Your task to perform on an android device: add a contact Image 0: 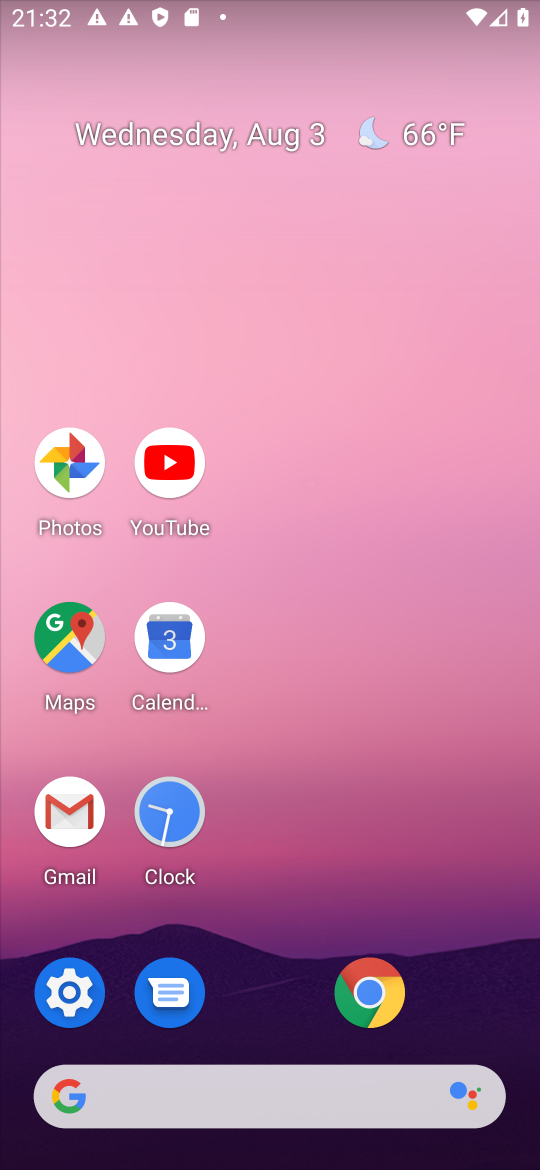
Step 0: drag from (267, 887) to (213, 164)
Your task to perform on an android device: add a contact Image 1: 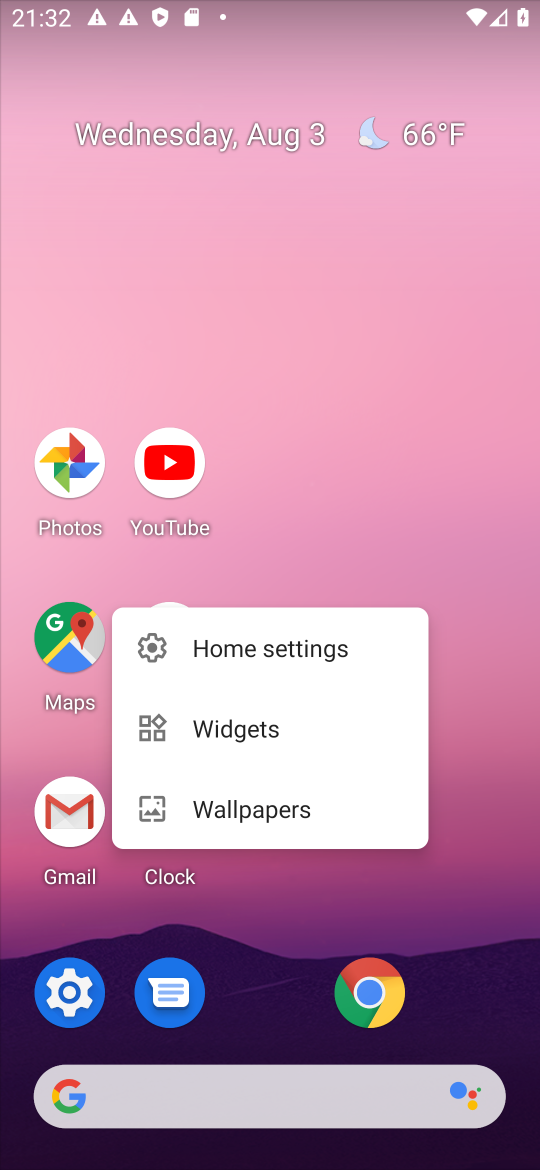
Step 1: click (383, 503)
Your task to perform on an android device: add a contact Image 2: 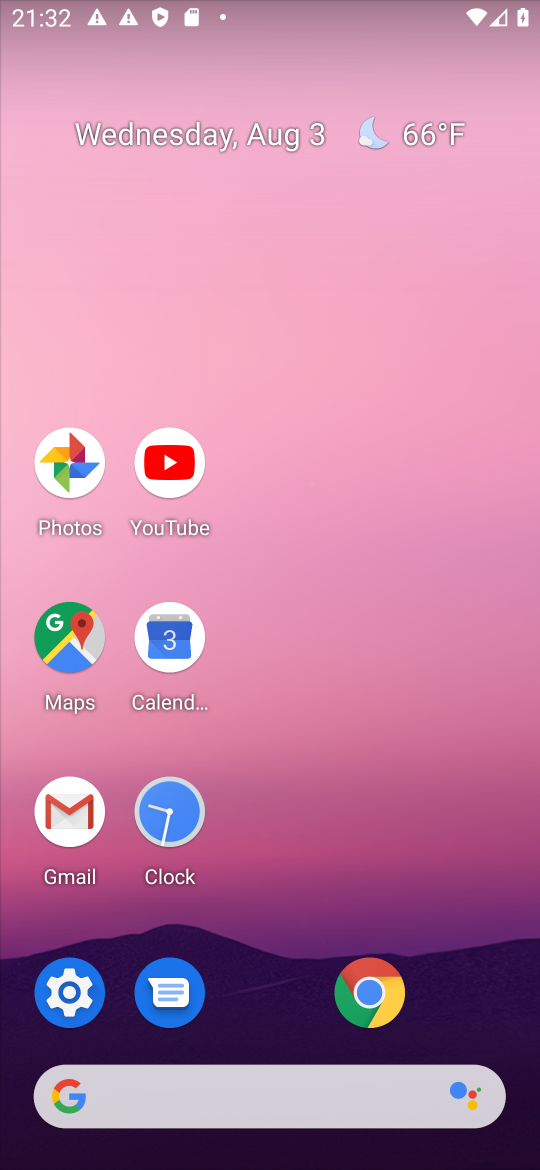
Step 2: drag from (286, 893) to (324, 11)
Your task to perform on an android device: add a contact Image 3: 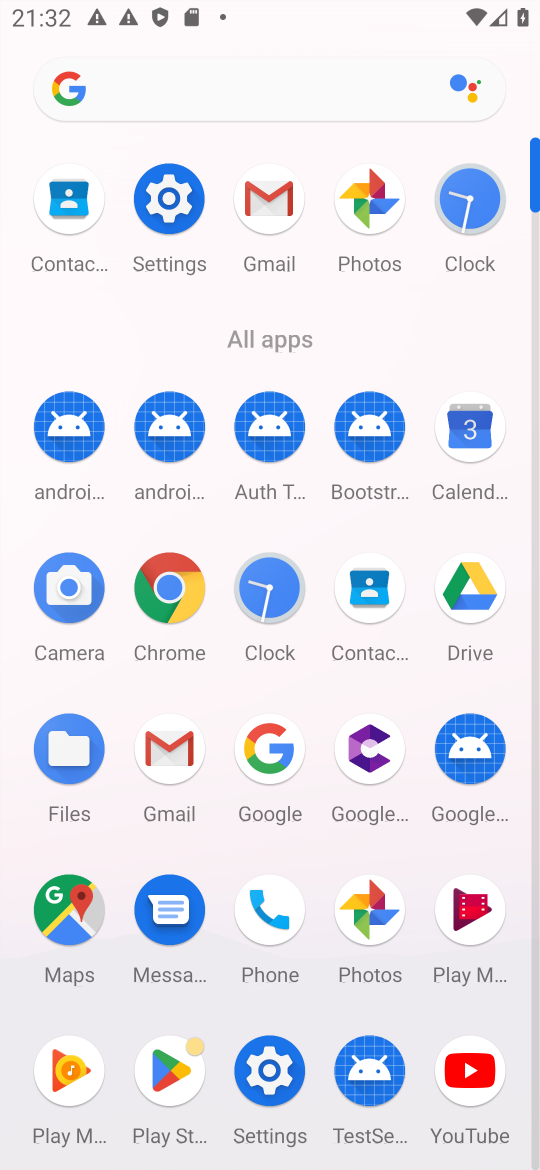
Step 3: click (384, 591)
Your task to perform on an android device: add a contact Image 4: 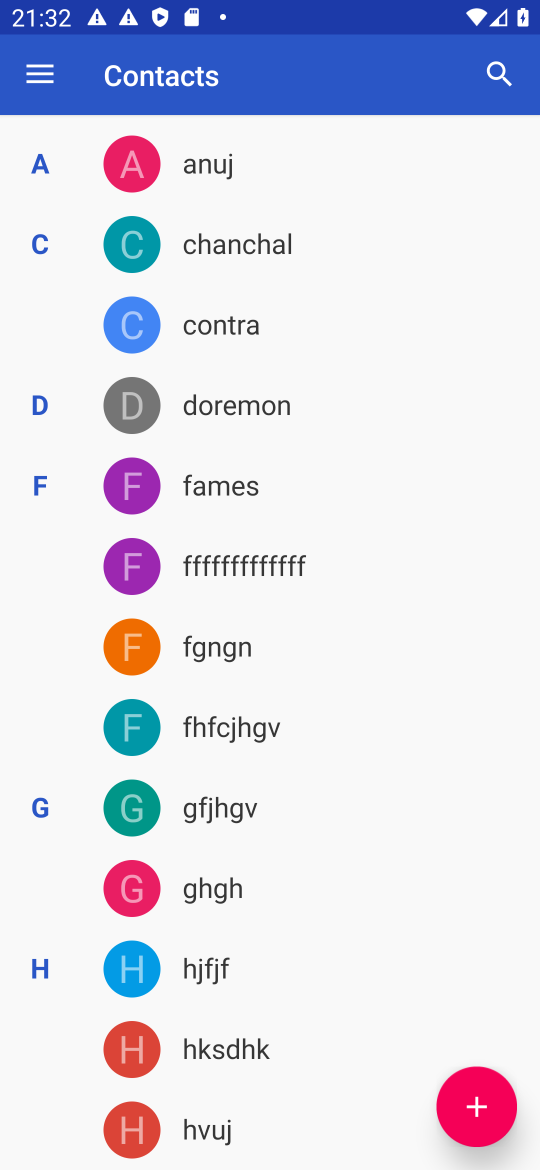
Step 4: click (384, 591)
Your task to perform on an android device: add a contact Image 5: 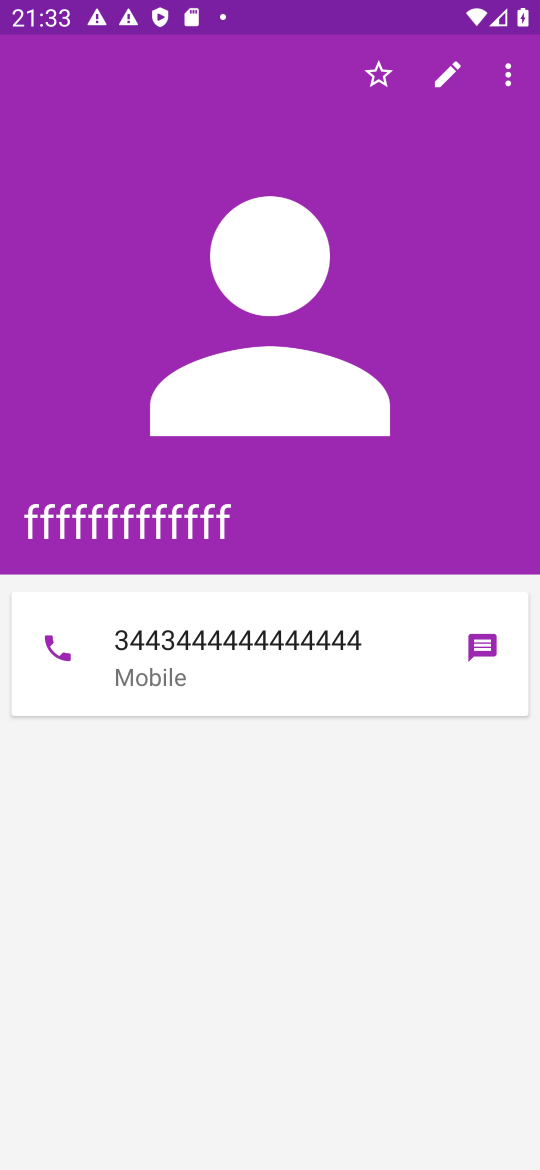
Step 5: press back button
Your task to perform on an android device: add a contact Image 6: 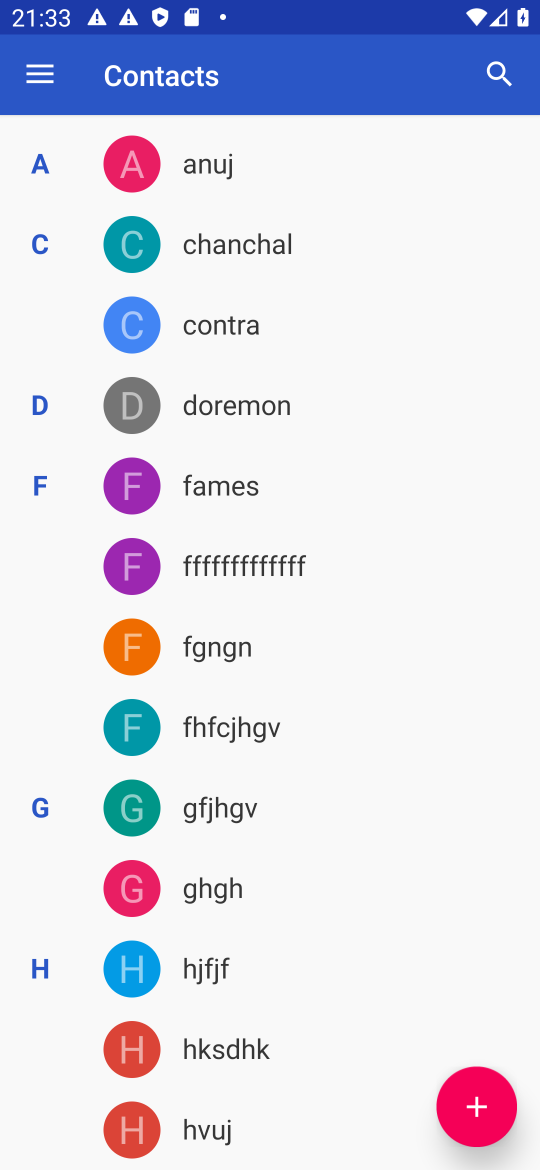
Step 6: click (454, 1094)
Your task to perform on an android device: add a contact Image 7: 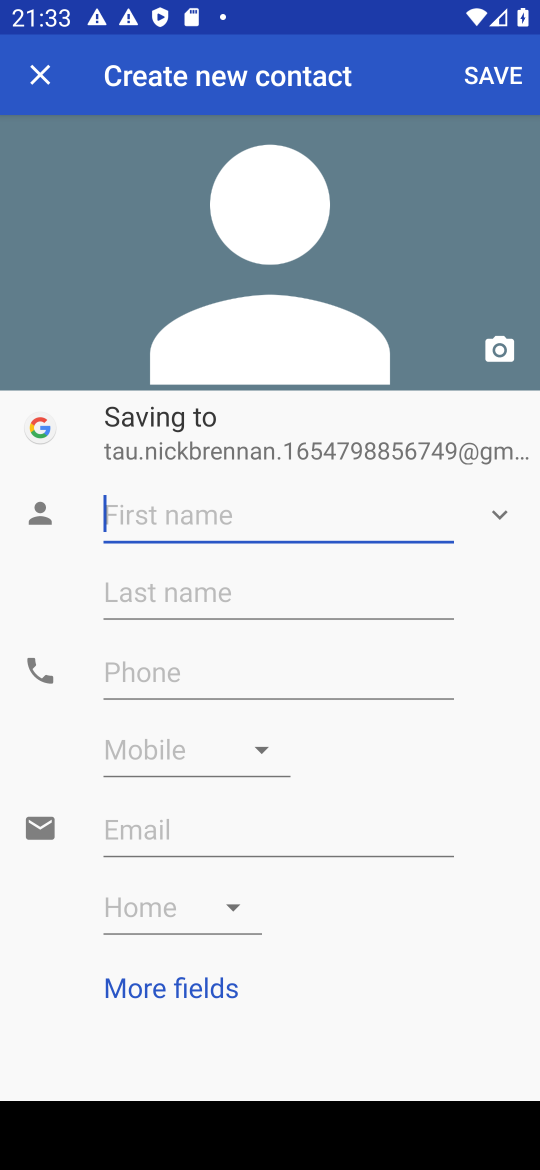
Step 7: click (295, 512)
Your task to perform on an android device: add a contact Image 8: 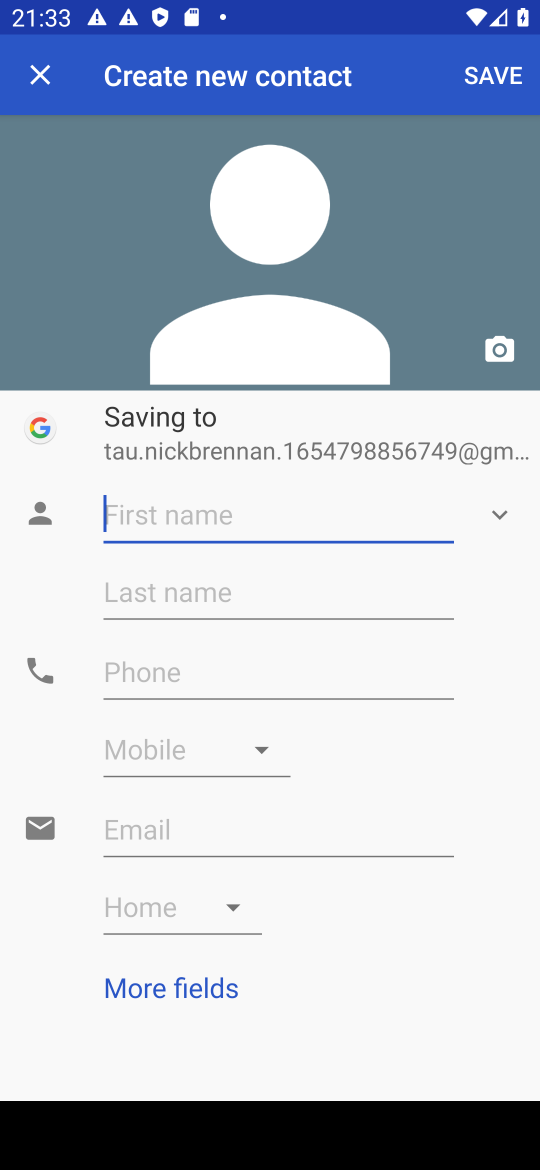
Step 8: type "bnbn"
Your task to perform on an android device: add a contact Image 9: 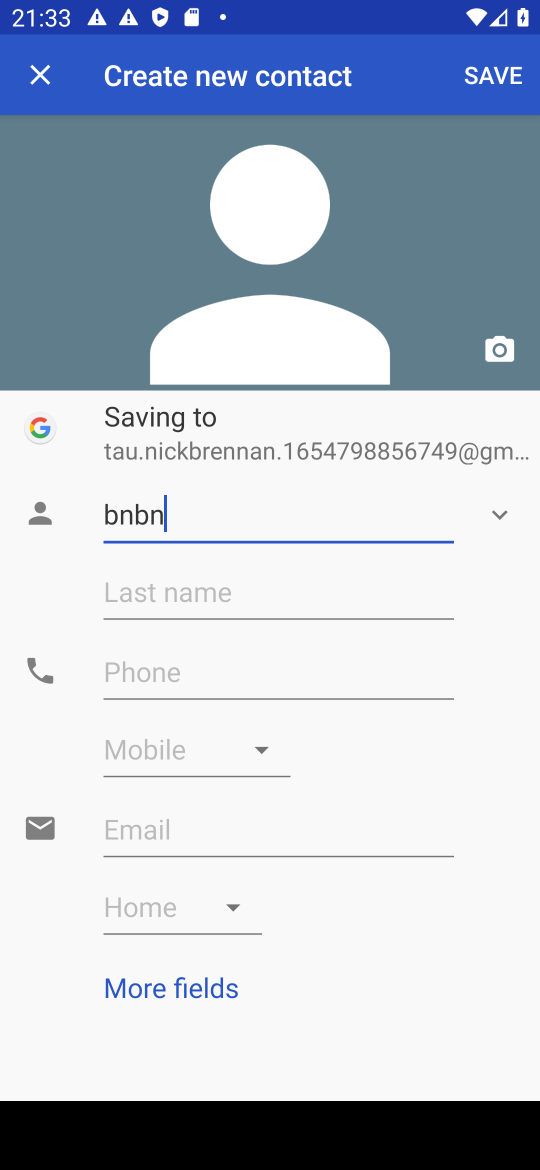
Step 9: click (184, 656)
Your task to perform on an android device: add a contact Image 10: 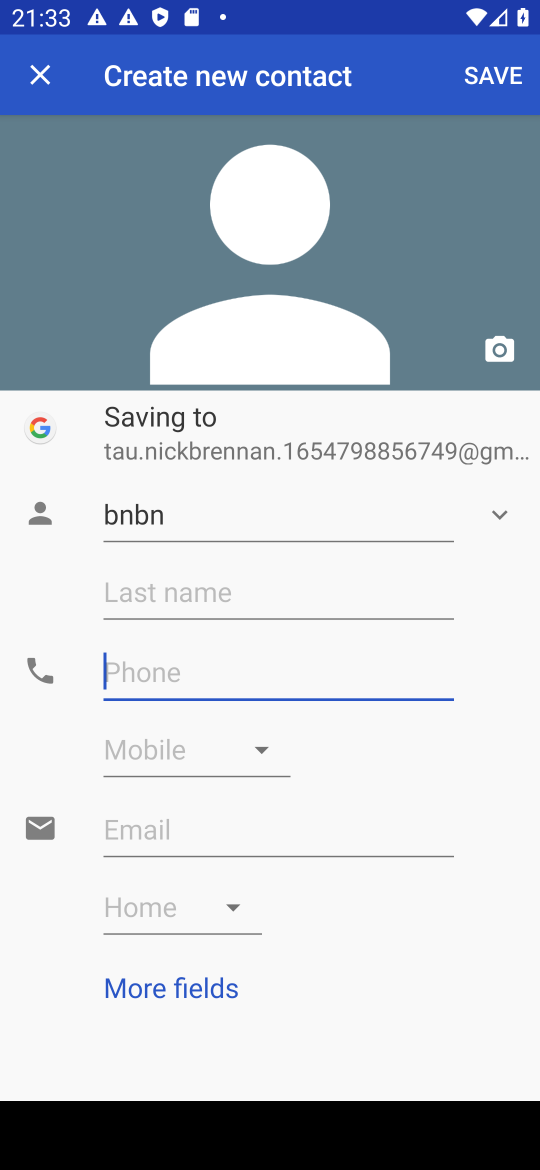
Step 10: type "77777"
Your task to perform on an android device: add a contact Image 11: 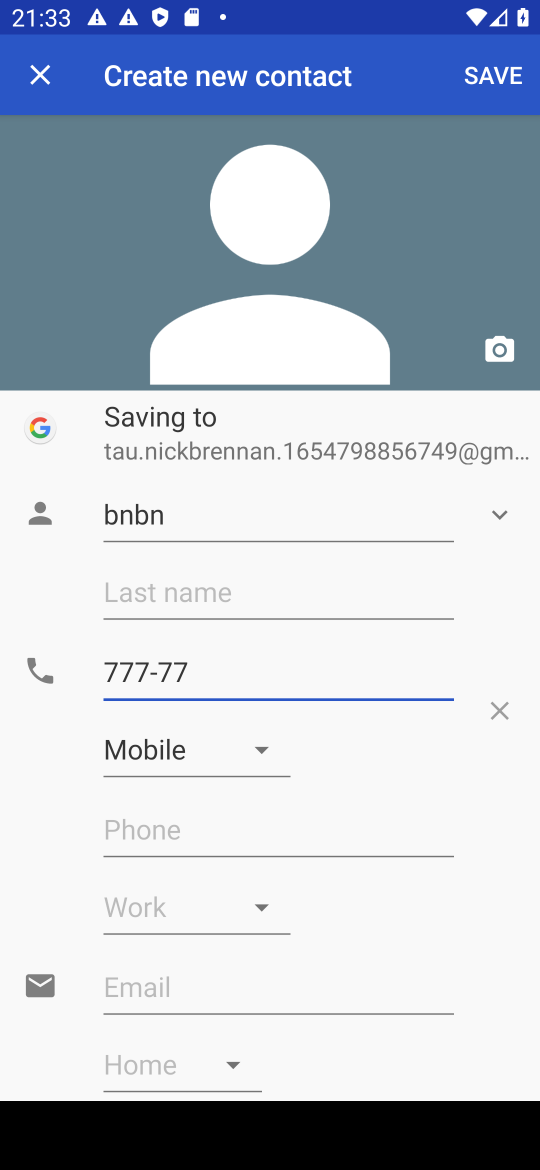
Step 11: click (505, 69)
Your task to perform on an android device: add a contact Image 12: 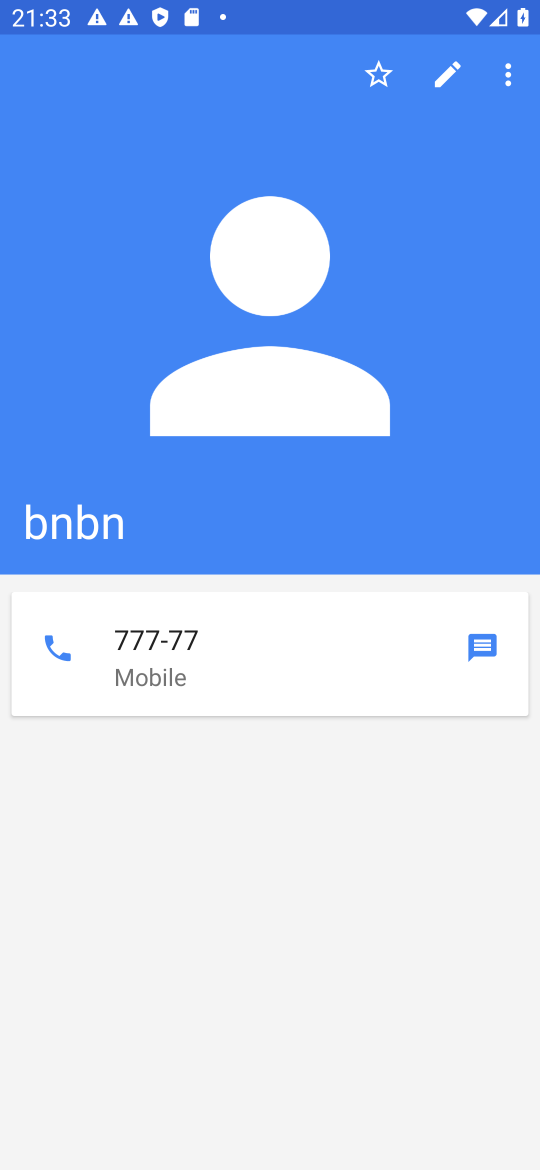
Step 12: task complete